Your task to perform on an android device: turn notification dots on Image 0: 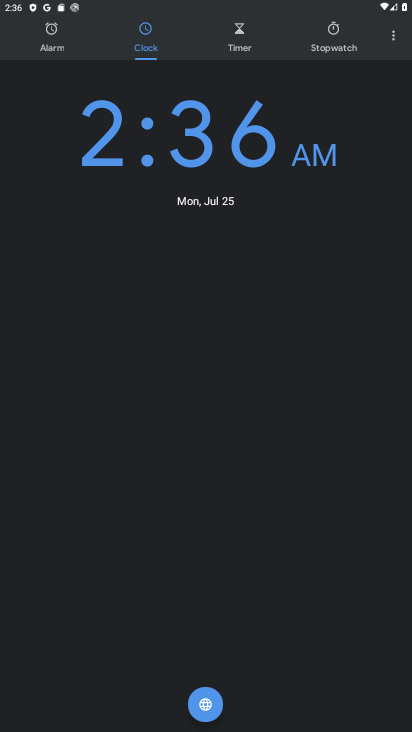
Step 0: press home button
Your task to perform on an android device: turn notification dots on Image 1: 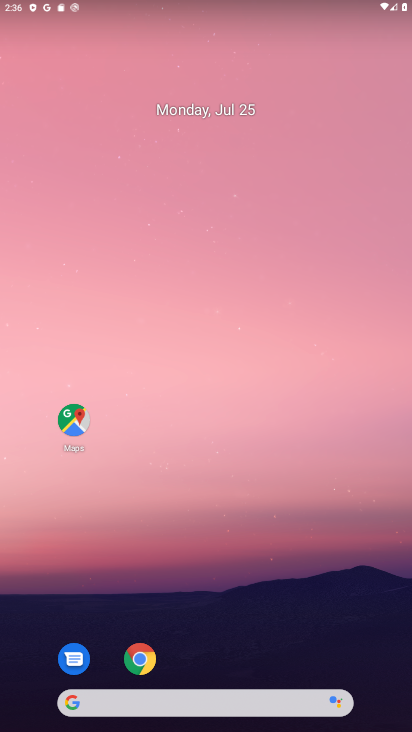
Step 1: drag from (193, 679) to (164, 16)
Your task to perform on an android device: turn notification dots on Image 2: 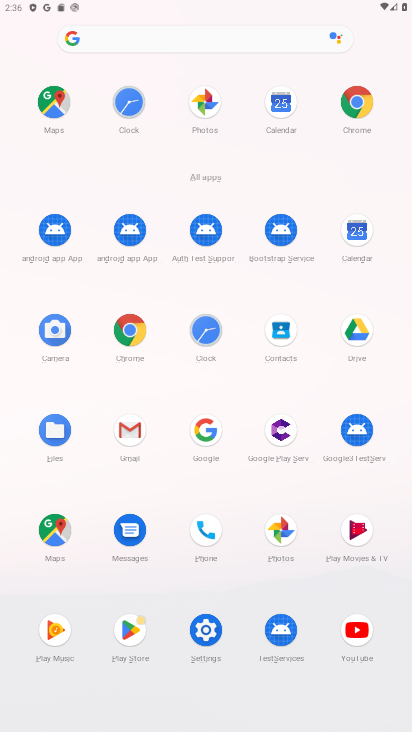
Step 2: click (191, 641)
Your task to perform on an android device: turn notification dots on Image 3: 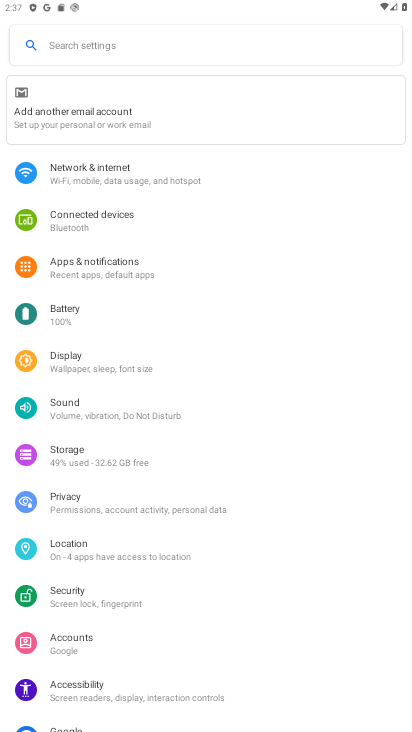
Step 3: click (95, 260)
Your task to perform on an android device: turn notification dots on Image 4: 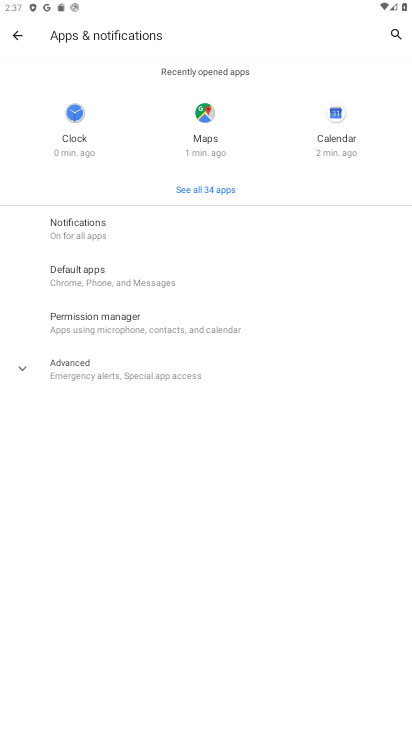
Step 4: click (106, 360)
Your task to perform on an android device: turn notification dots on Image 5: 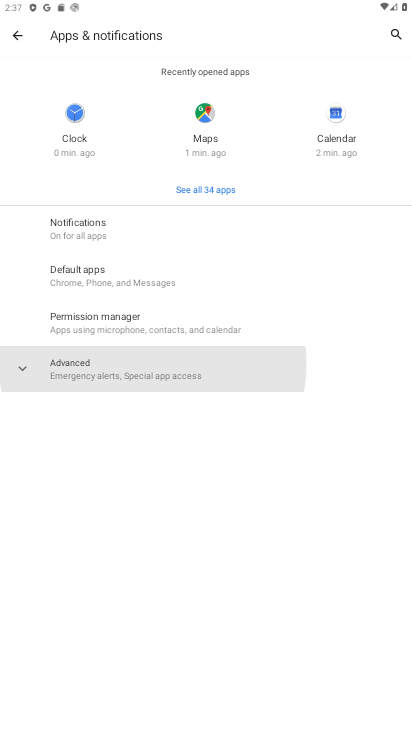
Step 5: click (139, 202)
Your task to perform on an android device: turn notification dots on Image 6: 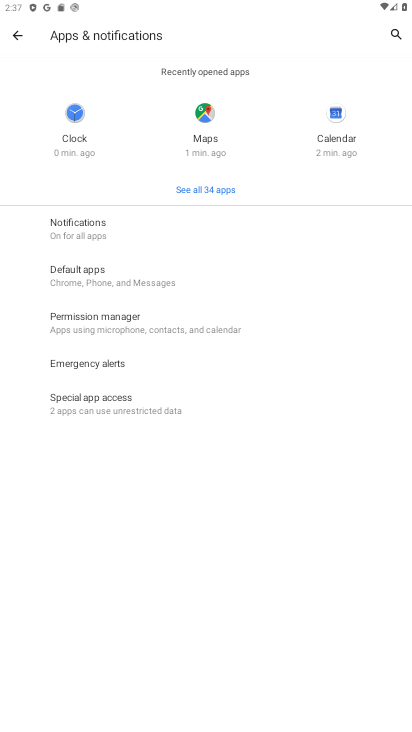
Step 6: click (133, 219)
Your task to perform on an android device: turn notification dots on Image 7: 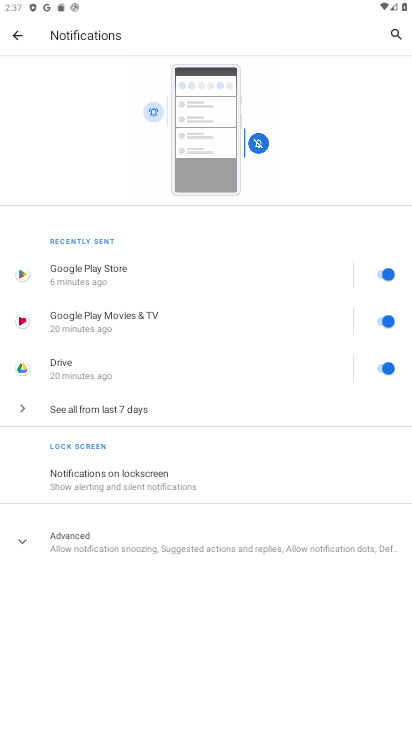
Step 7: click (142, 543)
Your task to perform on an android device: turn notification dots on Image 8: 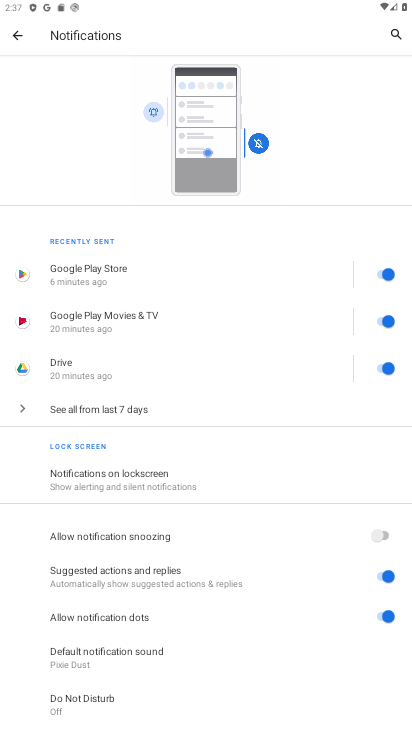
Step 8: task complete